Your task to perform on an android device: Go to location settings Image 0: 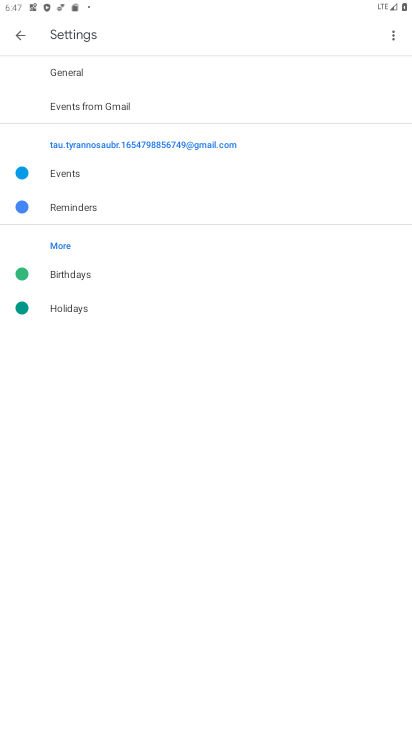
Step 0: press home button
Your task to perform on an android device: Go to location settings Image 1: 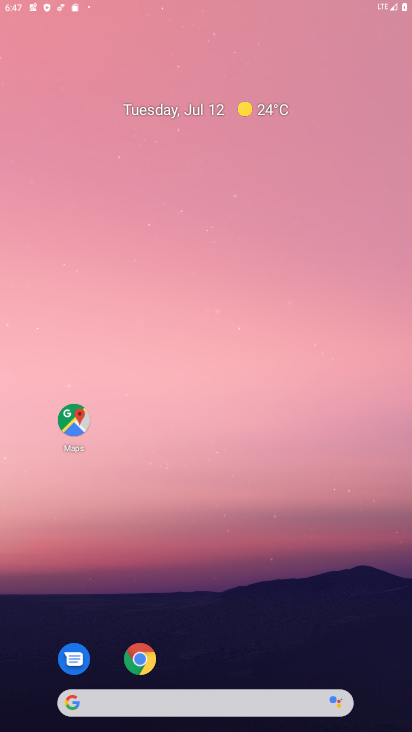
Step 1: drag from (391, 675) to (235, 53)
Your task to perform on an android device: Go to location settings Image 2: 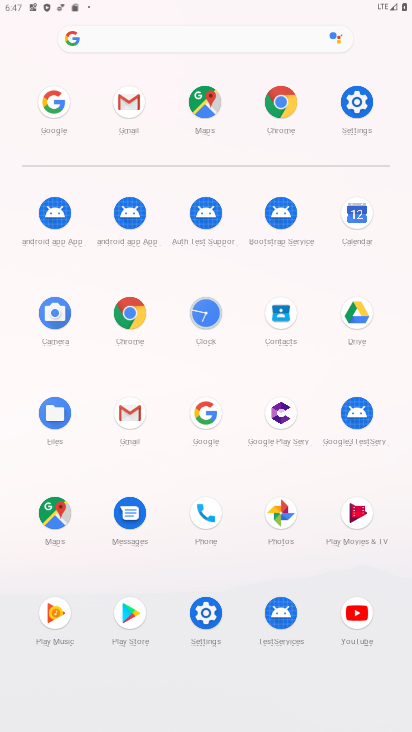
Step 2: click (200, 609)
Your task to perform on an android device: Go to location settings Image 3: 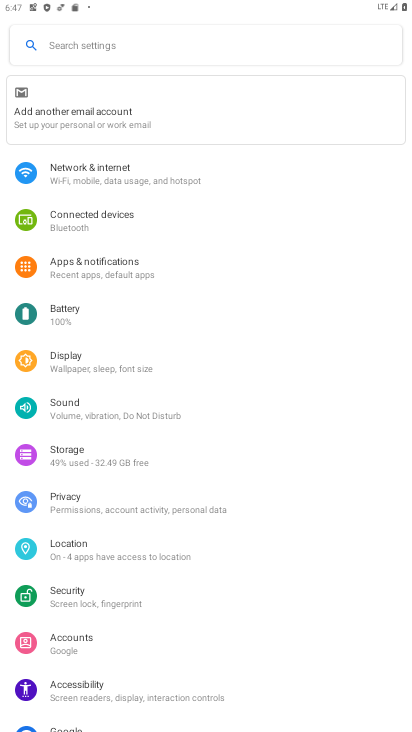
Step 3: click (135, 548)
Your task to perform on an android device: Go to location settings Image 4: 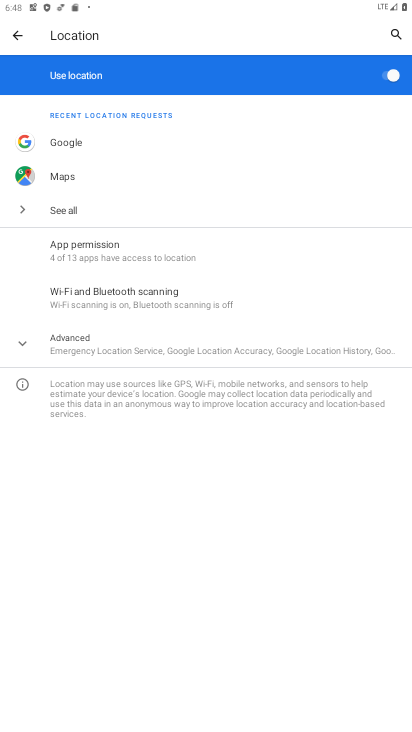
Step 4: task complete